Your task to perform on an android device: choose inbox layout in the gmail app Image 0: 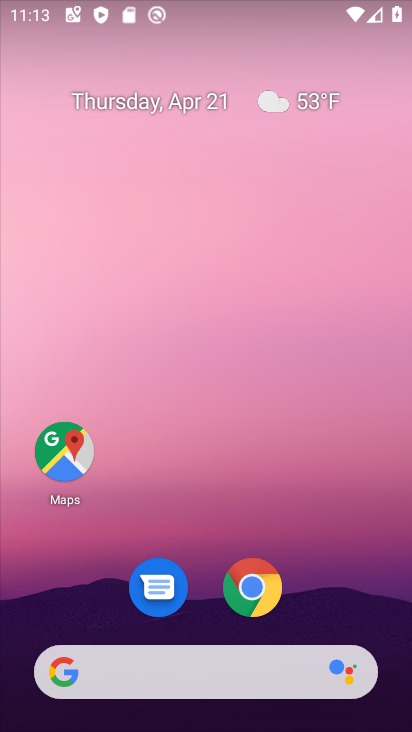
Step 0: drag from (208, 607) to (315, 36)
Your task to perform on an android device: choose inbox layout in the gmail app Image 1: 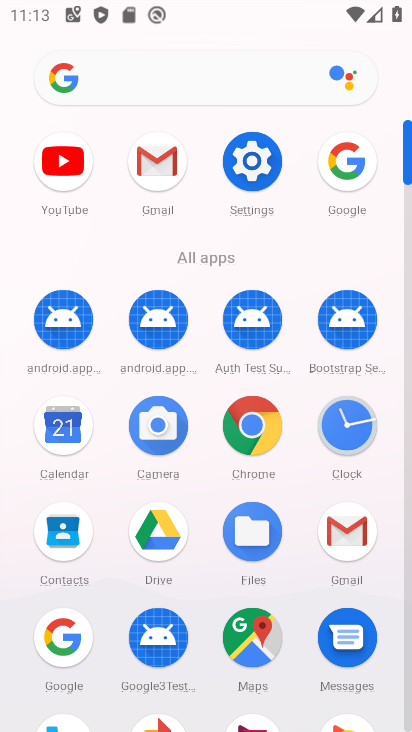
Step 1: click (153, 153)
Your task to perform on an android device: choose inbox layout in the gmail app Image 2: 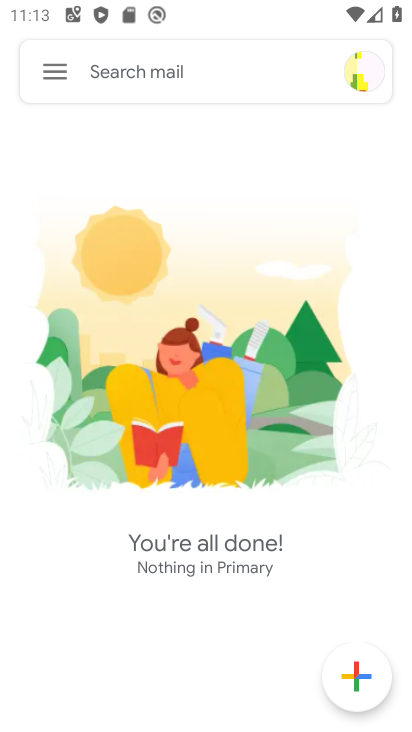
Step 2: click (55, 69)
Your task to perform on an android device: choose inbox layout in the gmail app Image 3: 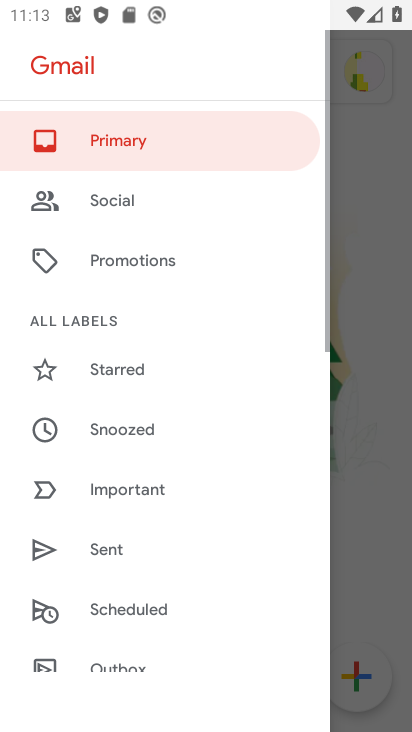
Step 3: drag from (180, 656) to (235, 64)
Your task to perform on an android device: choose inbox layout in the gmail app Image 4: 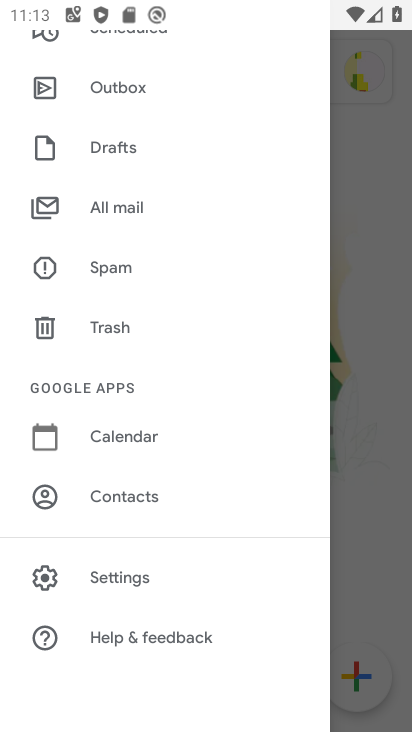
Step 4: click (128, 576)
Your task to perform on an android device: choose inbox layout in the gmail app Image 5: 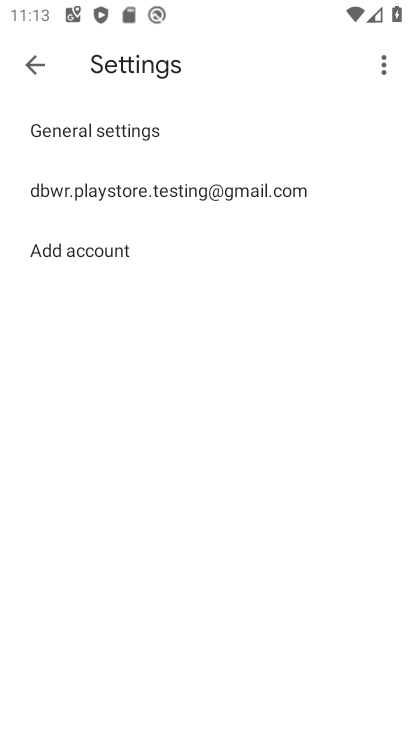
Step 5: click (116, 194)
Your task to perform on an android device: choose inbox layout in the gmail app Image 6: 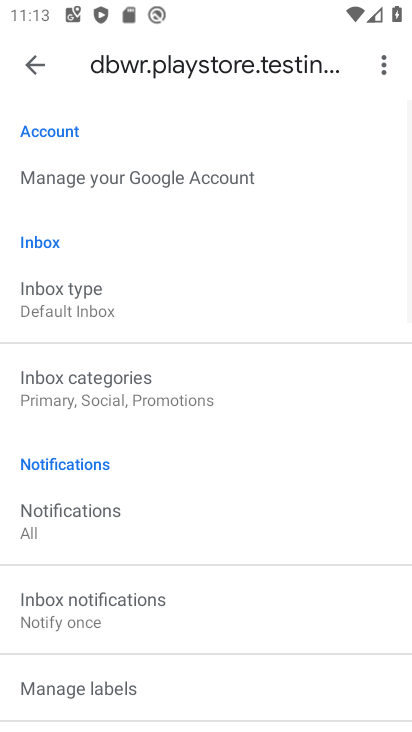
Step 6: click (105, 315)
Your task to perform on an android device: choose inbox layout in the gmail app Image 7: 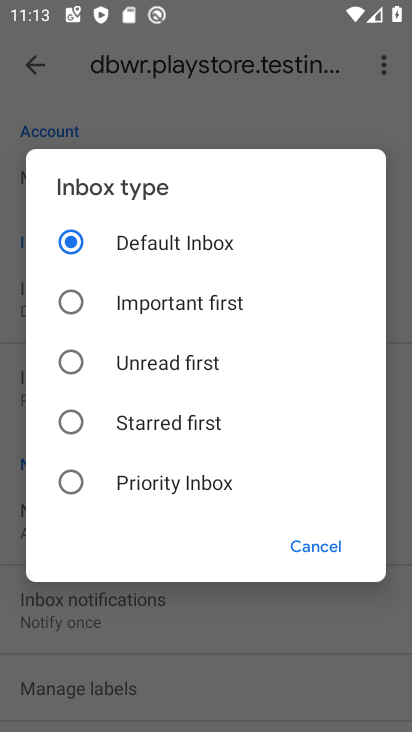
Step 7: click (70, 474)
Your task to perform on an android device: choose inbox layout in the gmail app Image 8: 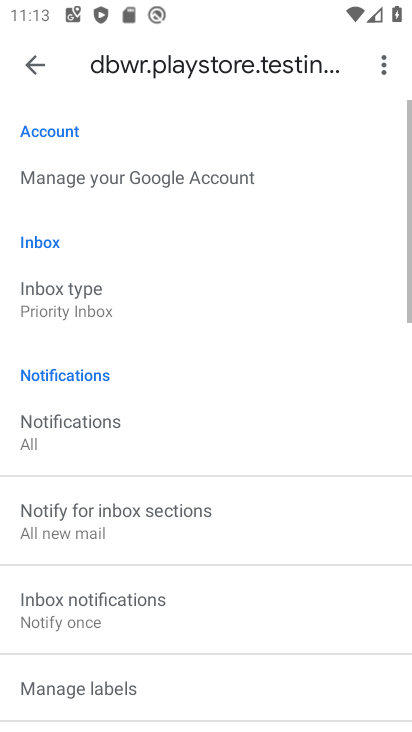
Step 8: task complete